Your task to perform on an android device: Show me recent news Image 0: 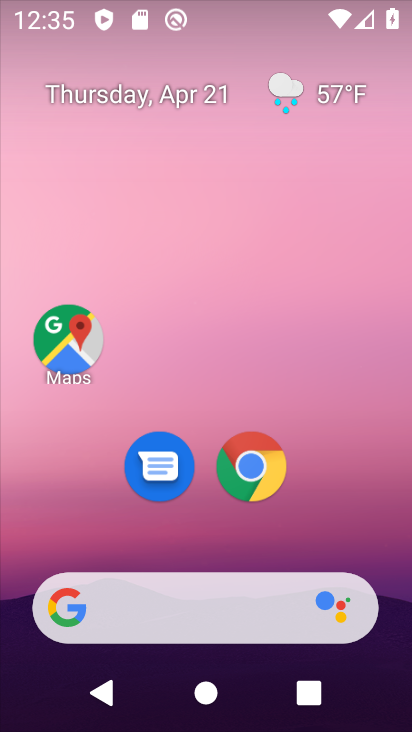
Step 0: drag from (354, 550) to (258, 0)
Your task to perform on an android device: Show me recent news Image 1: 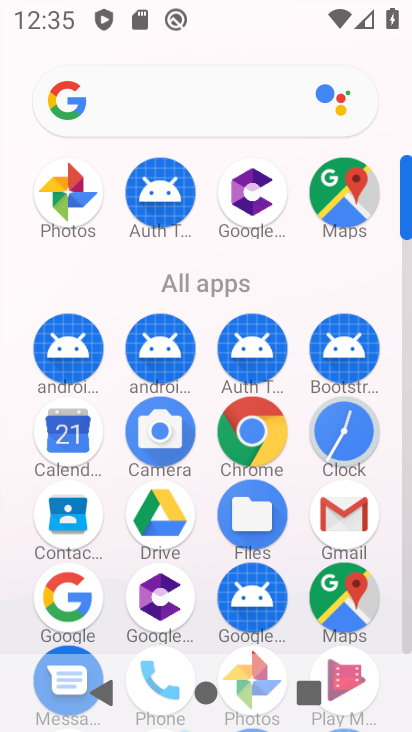
Step 1: click (278, 438)
Your task to perform on an android device: Show me recent news Image 2: 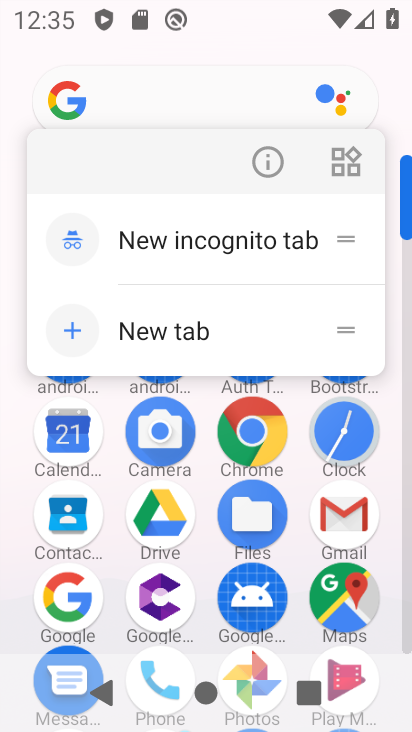
Step 2: click (277, 438)
Your task to perform on an android device: Show me recent news Image 3: 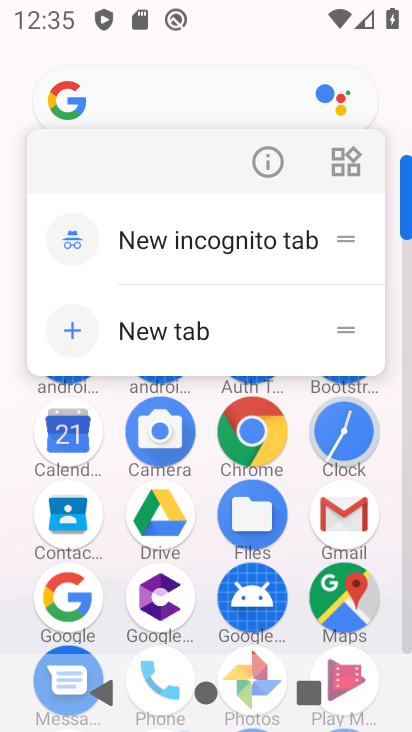
Step 3: click (255, 438)
Your task to perform on an android device: Show me recent news Image 4: 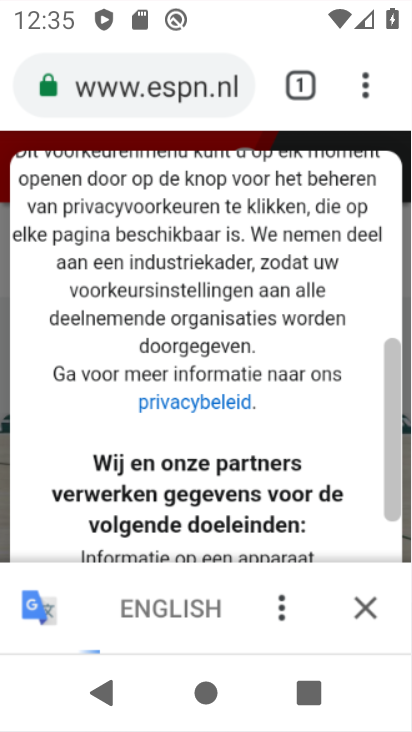
Step 4: click (255, 438)
Your task to perform on an android device: Show me recent news Image 5: 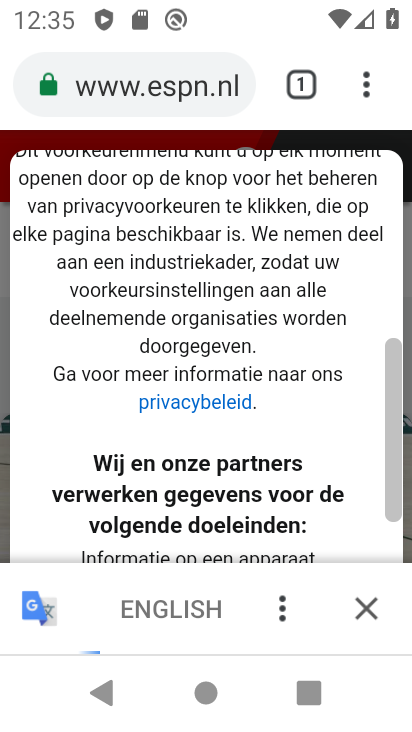
Step 5: click (373, 610)
Your task to perform on an android device: Show me recent news Image 6: 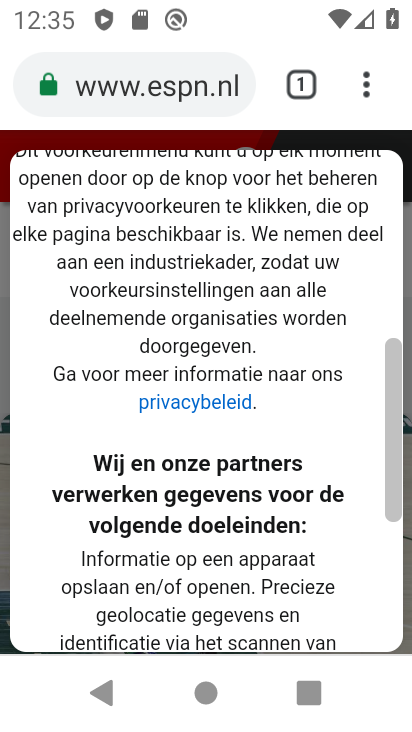
Step 6: click (113, 690)
Your task to perform on an android device: Show me recent news Image 7: 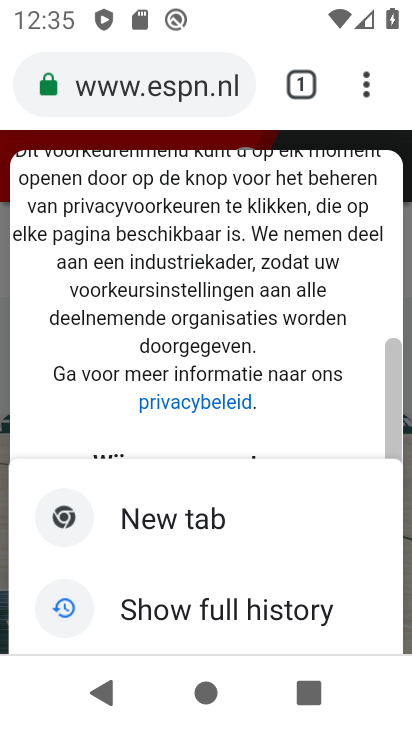
Step 7: click (113, 688)
Your task to perform on an android device: Show me recent news Image 8: 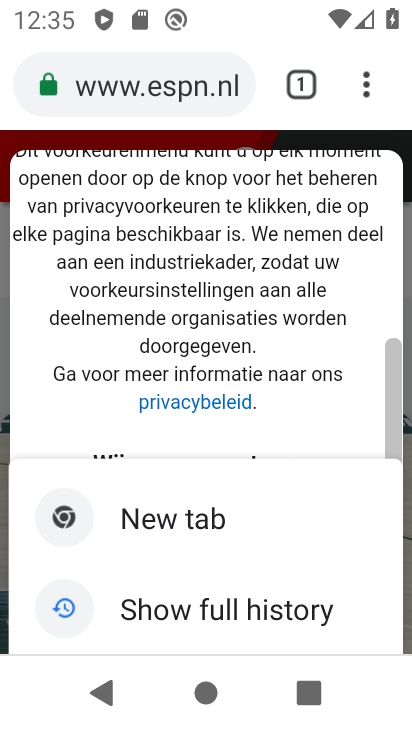
Step 8: task complete